Your task to perform on an android device: Search for pizza restaurants on Maps Image 0: 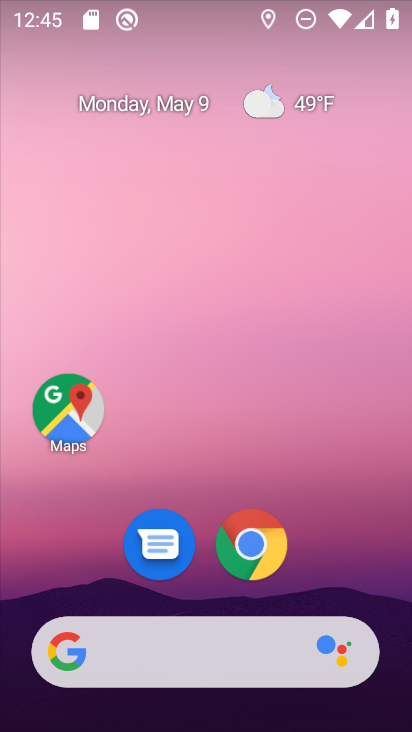
Step 0: drag from (335, 509) to (266, 99)
Your task to perform on an android device: Search for pizza restaurants on Maps Image 1: 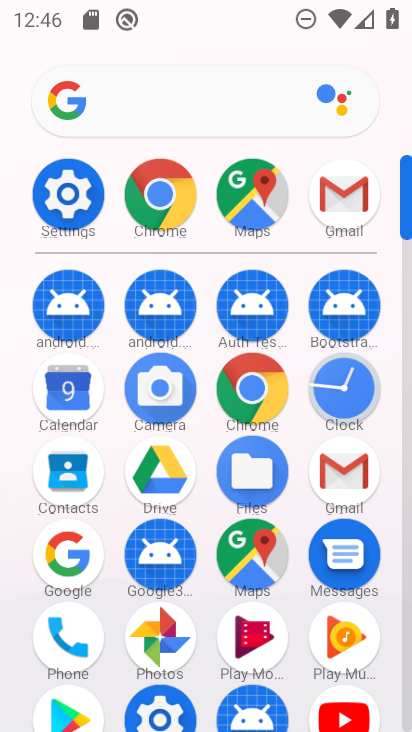
Step 1: click (241, 215)
Your task to perform on an android device: Search for pizza restaurants on Maps Image 2: 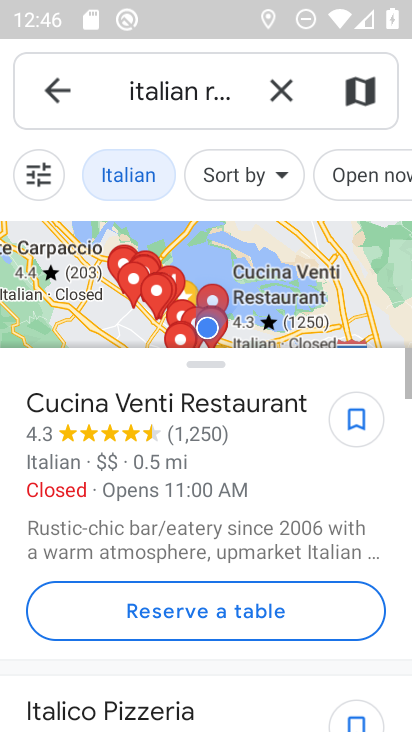
Step 2: click (277, 101)
Your task to perform on an android device: Search for pizza restaurants on Maps Image 3: 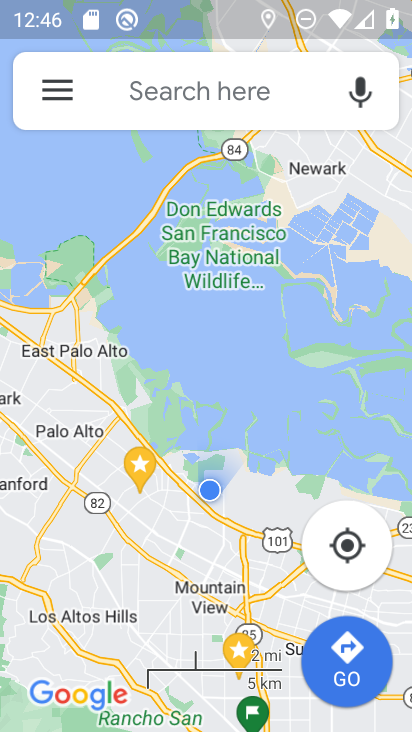
Step 3: click (270, 104)
Your task to perform on an android device: Search for pizza restaurants on Maps Image 4: 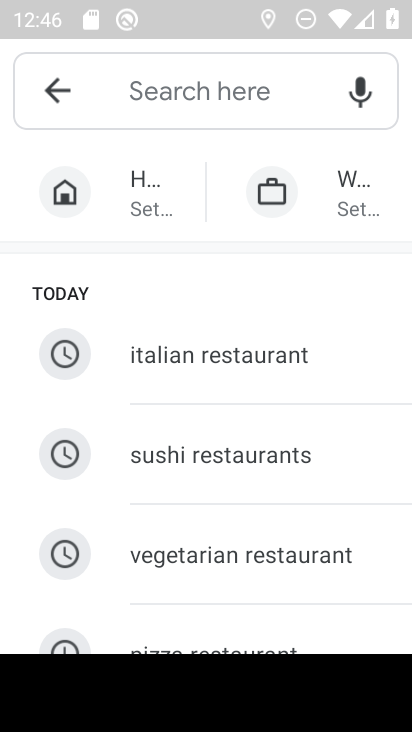
Step 4: type "pizza resturents"
Your task to perform on an android device: Search for pizza restaurants on Maps Image 5: 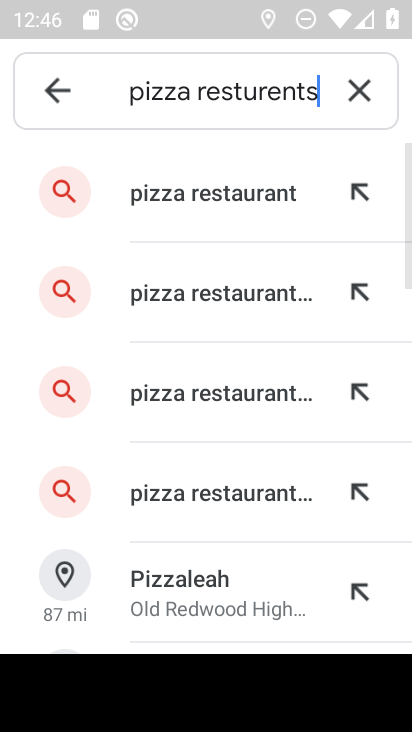
Step 5: click (144, 189)
Your task to perform on an android device: Search for pizza restaurants on Maps Image 6: 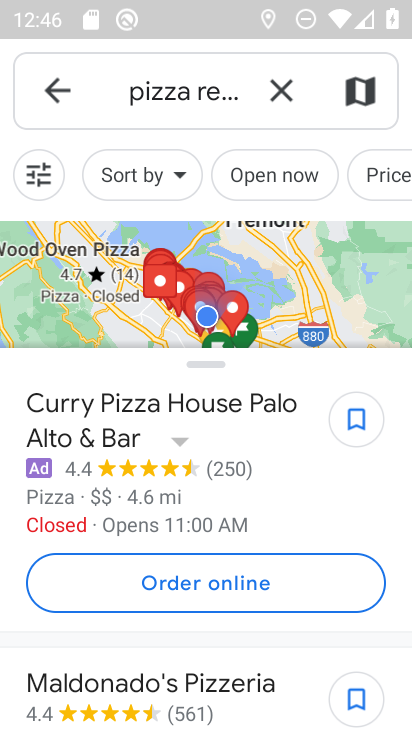
Step 6: task complete